Your task to perform on an android device: Is it going to rain this weekend? Image 0: 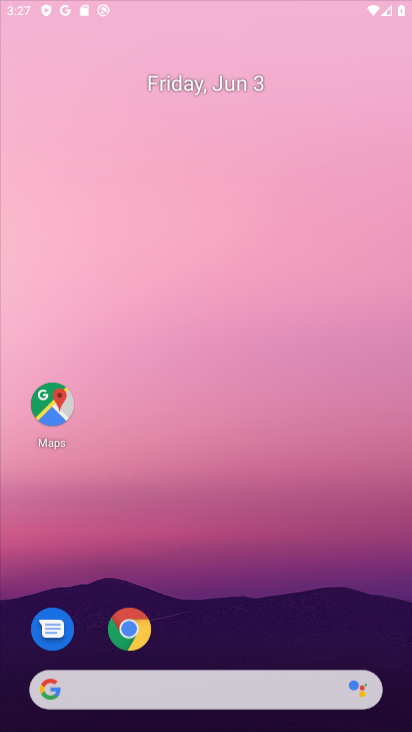
Step 0: drag from (232, 711) to (161, 210)
Your task to perform on an android device: Is it going to rain this weekend? Image 1: 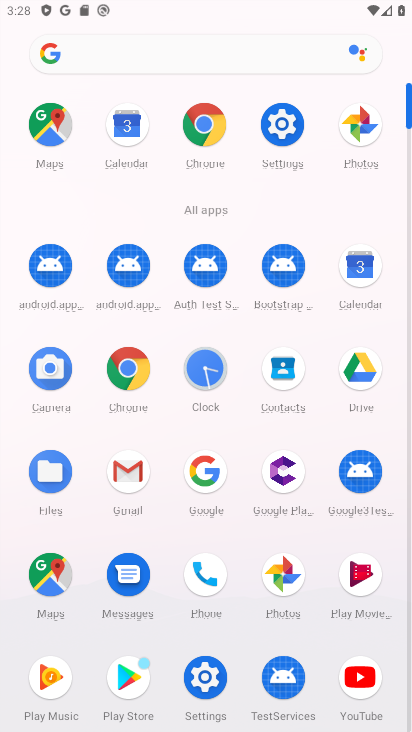
Step 1: press back button
Your task to perform on an android device: Is it going to rain this weekend? Image 2: 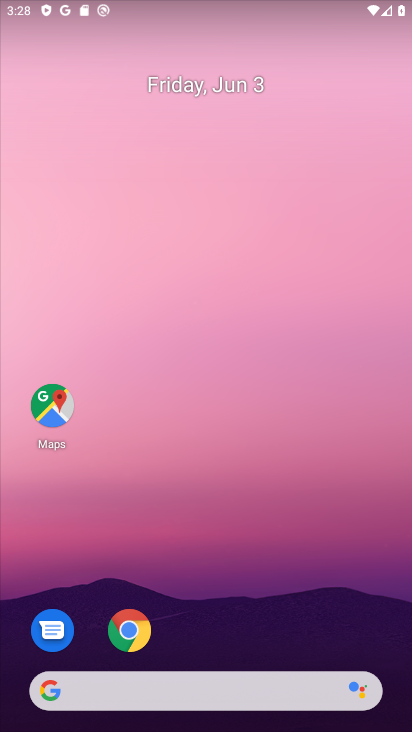
Step 2: drag from (0, 188) to (396, 338)
Your task to perform on an android device: Is it going to rain this weekend? Image 3: 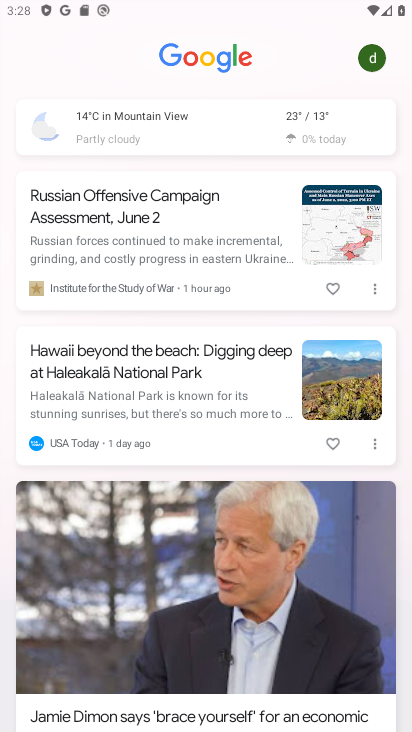
Step 3: click (167, 120)
Your task to perform on an android device: Is it going to rain this weekend? Image 4: 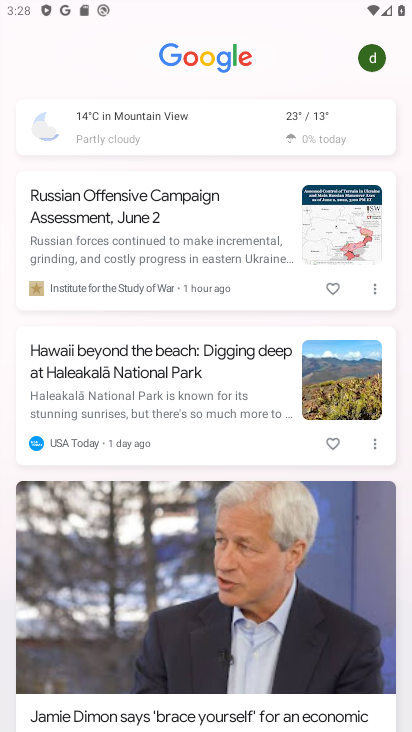
Step 4: click (184, 130)
Your task to perform on an android device: Is it going to rain this weekend? Image 5: 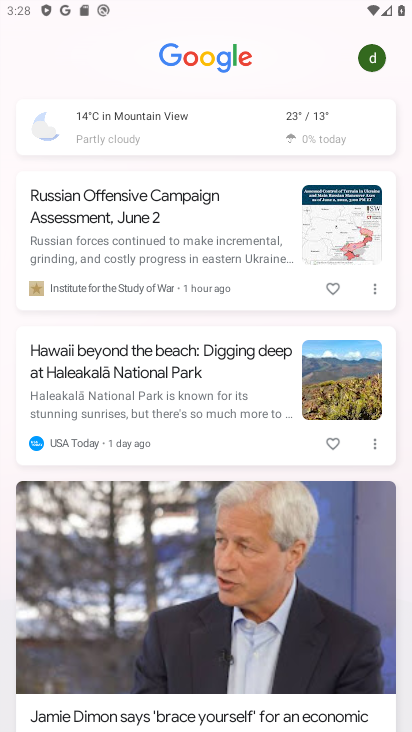
Step 5: click (193, 124)
Your task to perform on an android device: Is it going to rain this weekend? Image 6: 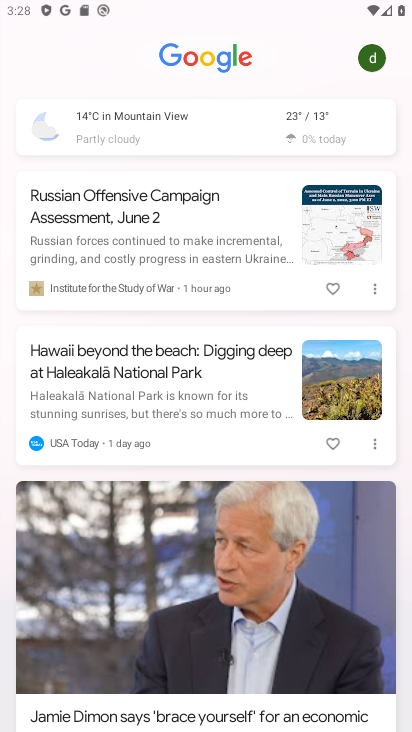
Step 6: click (213, 133)
Your task to perform on an android device: Is it going to rain this weekend? Image 7: 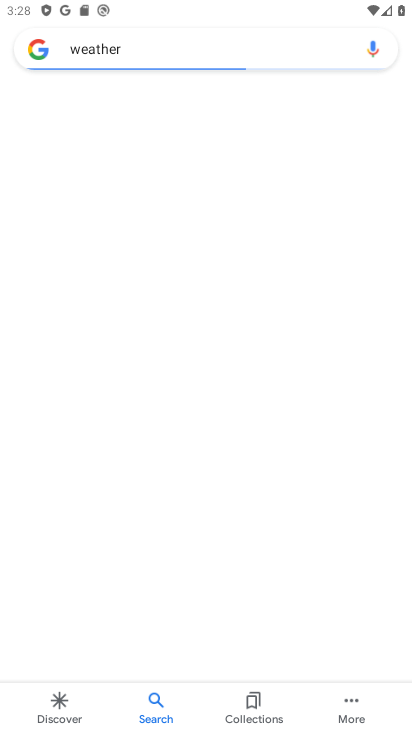
Step 7: click (213, 133)
Your task to perform on an android device: Is it going to rain this weekend? Image 8: 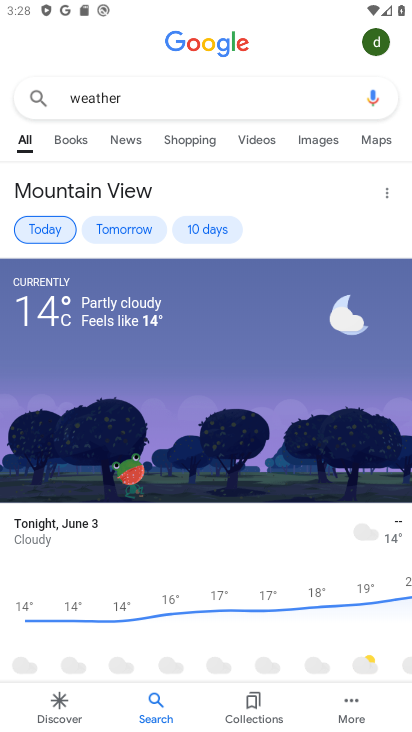
Step 8: click (202, 231)
Your task to perform on an android device: Is it going to rain this weekend? Image 9: 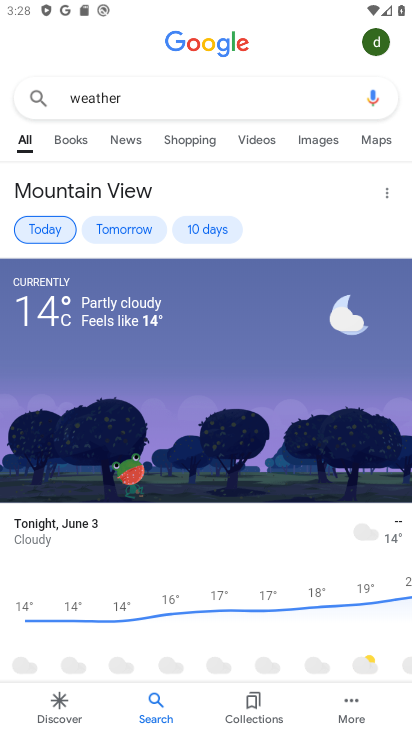
Step 9: click (202, 231)
Your task to perform on an android device: Is it going to rain this weekend? Image 10: 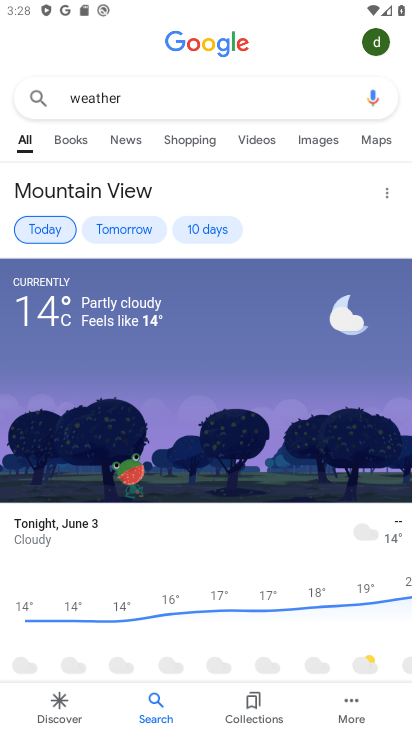
Step 10: click (202, 231)
Your task to perform on an android device: Is it going to rain this weekend? Image 11: 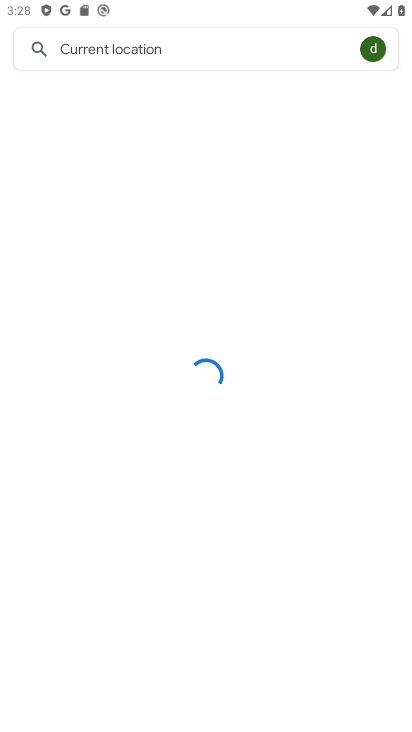
Step 11: click (202, 230)
Your task to perform on an android device: Is it going to rain this weekend? Image 12: 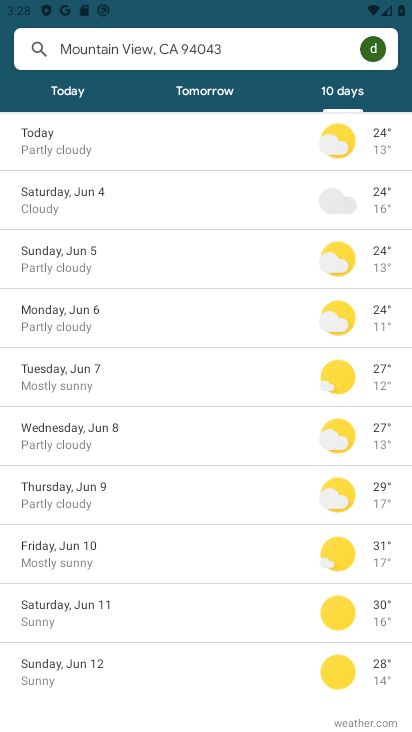
Step 12: task complete